Your task to perform on an android device: toggle show notifications on the lock screen Image 0: 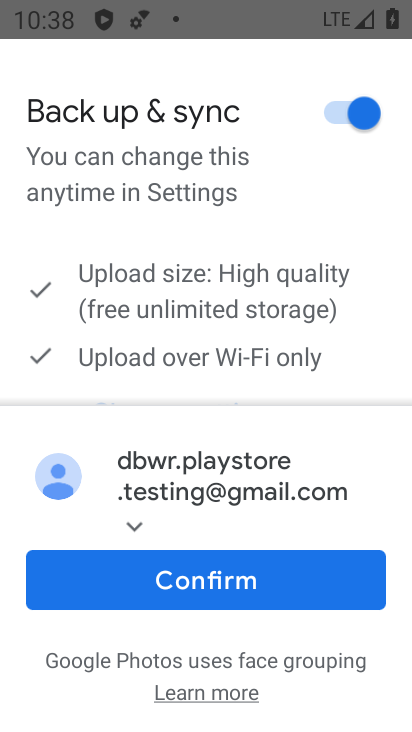
Step 0: click (222, 572)
Your task to perform on an android device: toggle show notifications on the lock screen Image 1: 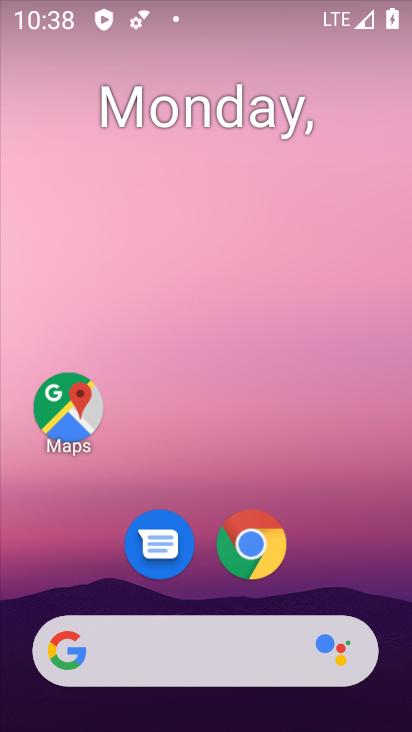
Step 1: drag from (384, 537) to (345, 217)
Your task to perform on an android device: toggle show notifications on the lock screen Image 2: 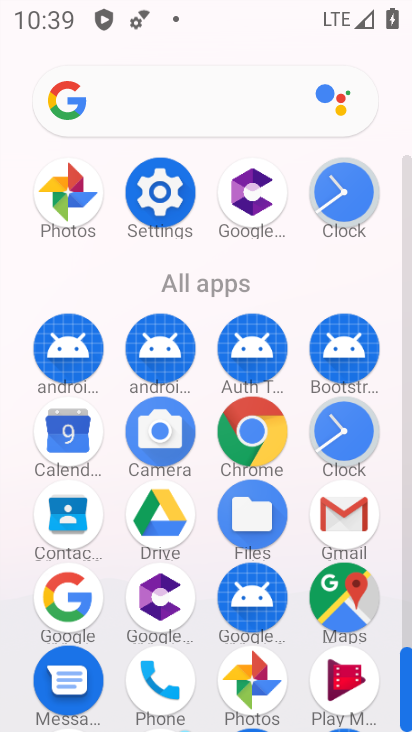
Step 2: click (152, 189)
Your task to perform on an android device: toggle show notifications on the lock screen Image 3: 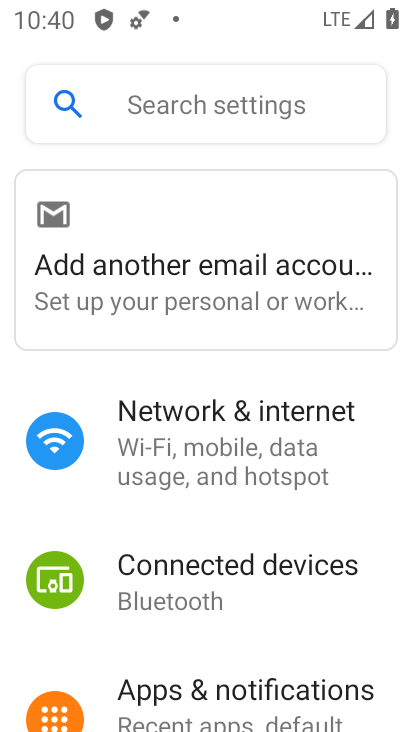
Step 3: click (231, 682)
Your task to perform on an android device: toggle show notifications on the lock screen Image 4: 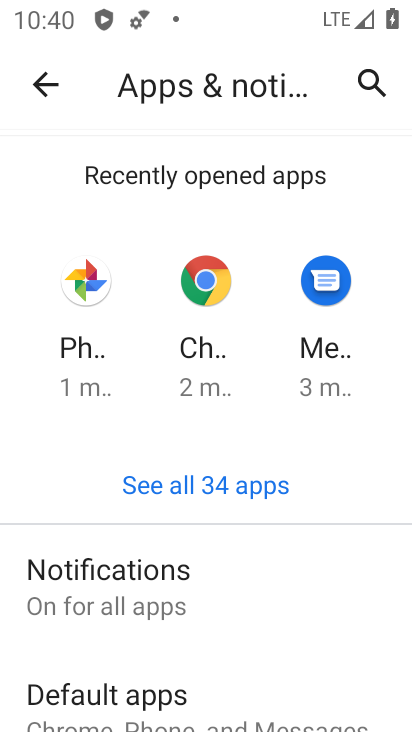
Step 4: drag from (299, 693) to (280, 384)
Your task to perform on an android device: toggle show notifications on the lock screen Image 5: 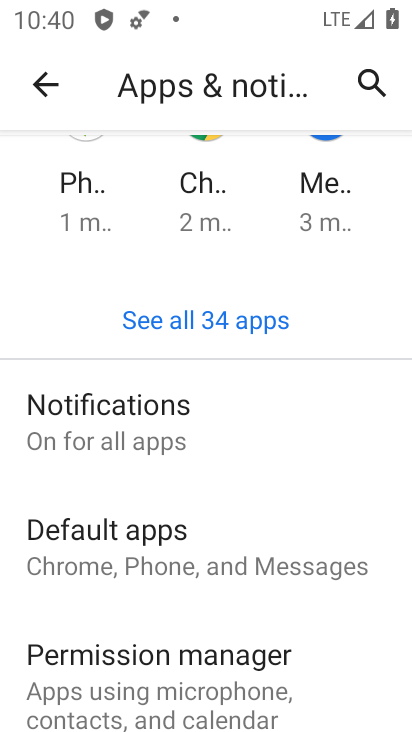
Step 5: drag from (325, 620) to (326, 410)
Your task to perform on an android device: toggle show notifications on the lock screen Image 6: 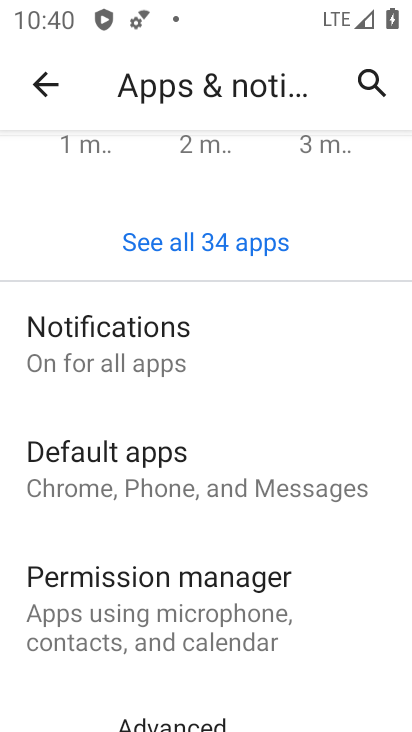
Step 6: drag from (326, 615) to (336, 363)
Your task to perform on an android device: toggle show notifications on the lock screen Image 7: 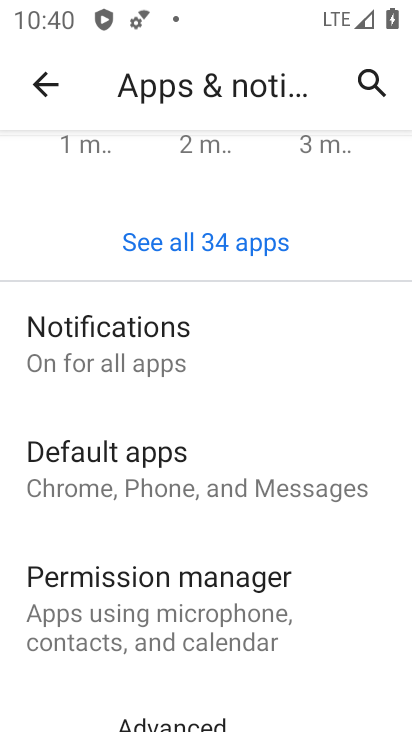
Step 7: click (117, 336)
Your task to perform on an android device: toggle show notifications on the lock screen Image 8: 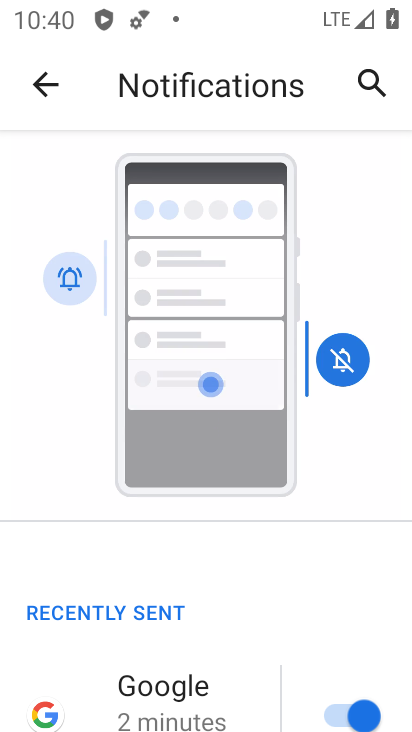
Step 8: drag from (309, 603) to (314, 322)
Your task to perform on an android device: toggle show notifications on the lock screen Image 9: 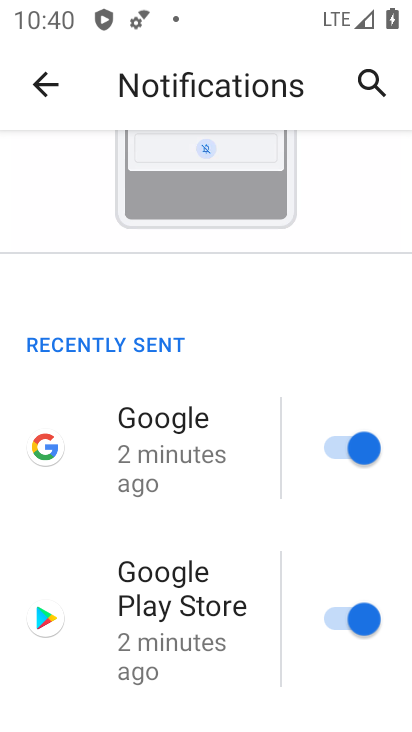
Step 9: drag from (265, 673) to (283, 411)
Your task to perform on an android device: toggle show notifications on the lock screen Image 10: 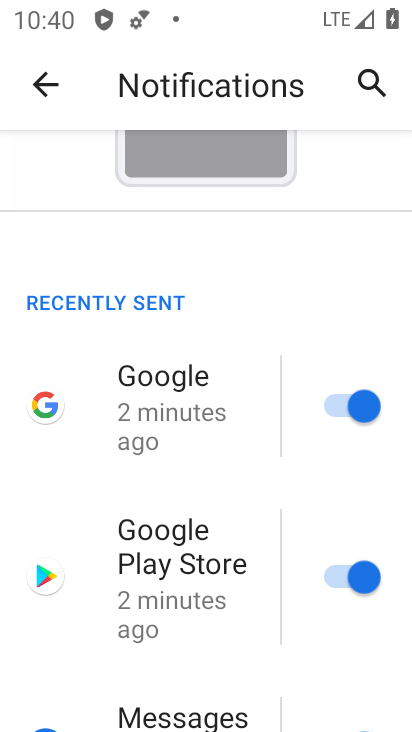
Step 10: drag from (291, 635) to (267, 433)
Your task to perform on an android device: toggle show notifications on the lock screen Image 11: 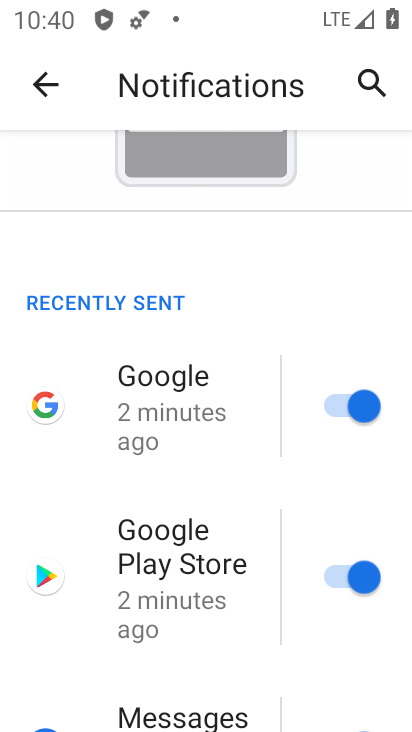
Step 11: drag from (273, 434) to (282, 358)
Your task to perform on an android device: toggle show notifications on the lock screen Image 12: 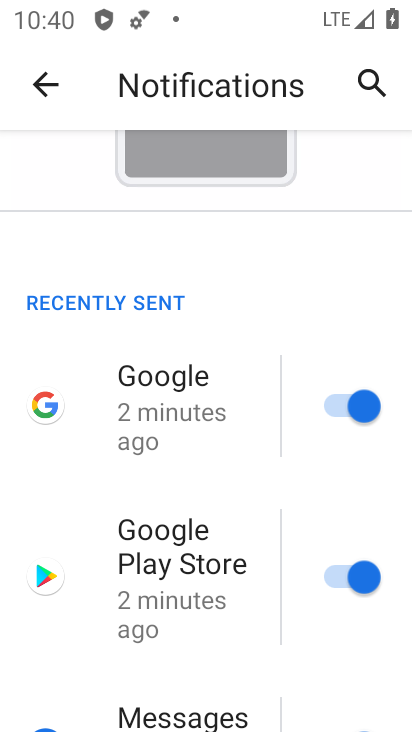
Step 12: drag from (278, 703) to (286, 329)
Your task to perform on an android device: toggle show notifications on the lock screen Image 13: 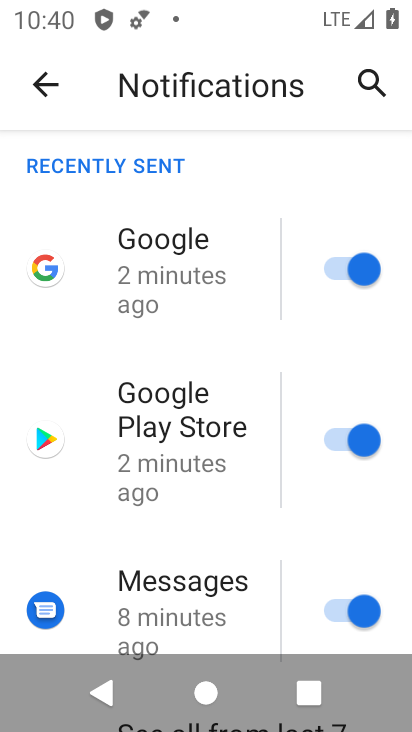
Step 13: drag from (266, 639) to (271, 266)
Your task to perform on an android device: toggle show notifications on the lock screen Image 14: 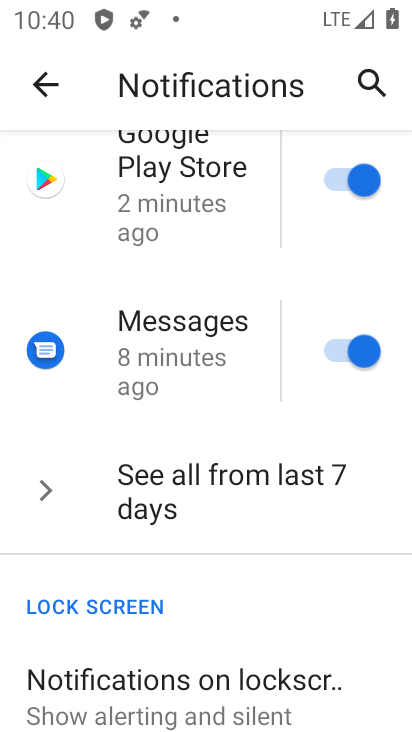
Step 14: drag from (272, 544) to (283, 362)
Your task to perform on an android device: toggle show notifications on the lock screen Image 15: 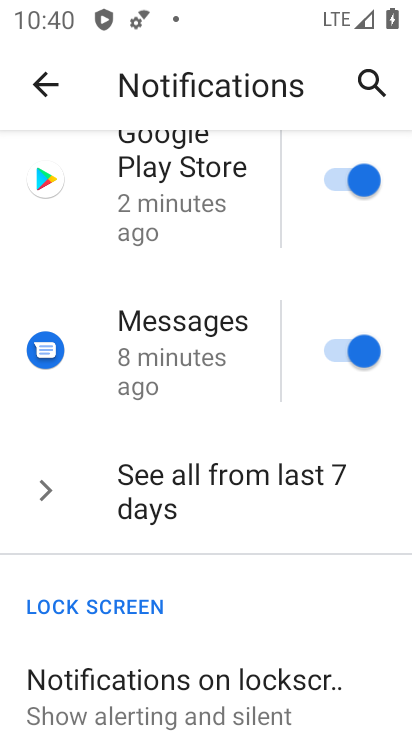
Step 15: click (128, 677)
Your task to perform on an android device: toggle show notifications on the lock screen Image 16: 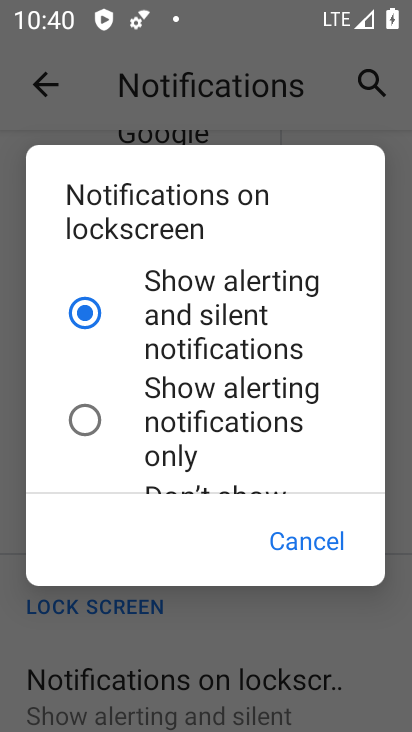
Step 16: drag from (302, 464) to (324, 232)
Your task to perform on an android device: toggle show notifications on the lock screen Image 17: 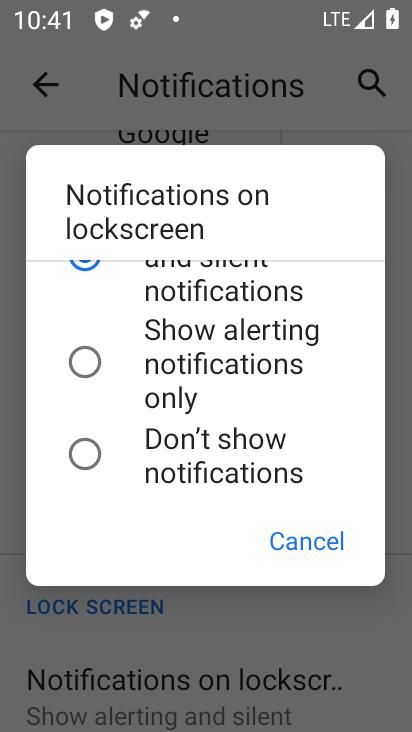
Step 17: click (83, 371)
Your task to perform on an android device: toggle show notifications on the lock screen Image 18: 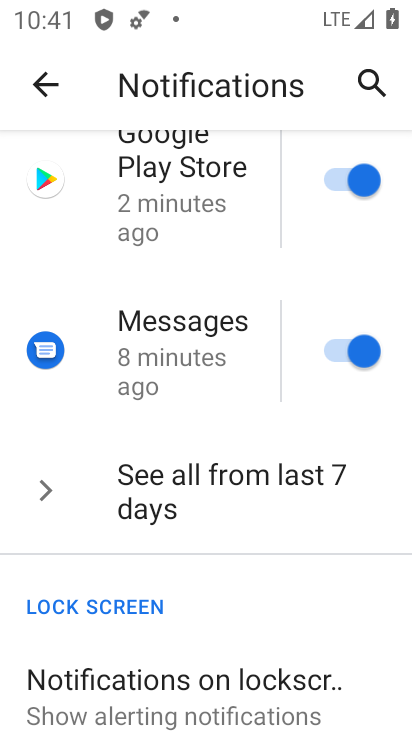
Step 18: task complete